Your task to perform on an android device: Search for dining room chairs on Crate & Barrel Image 0: 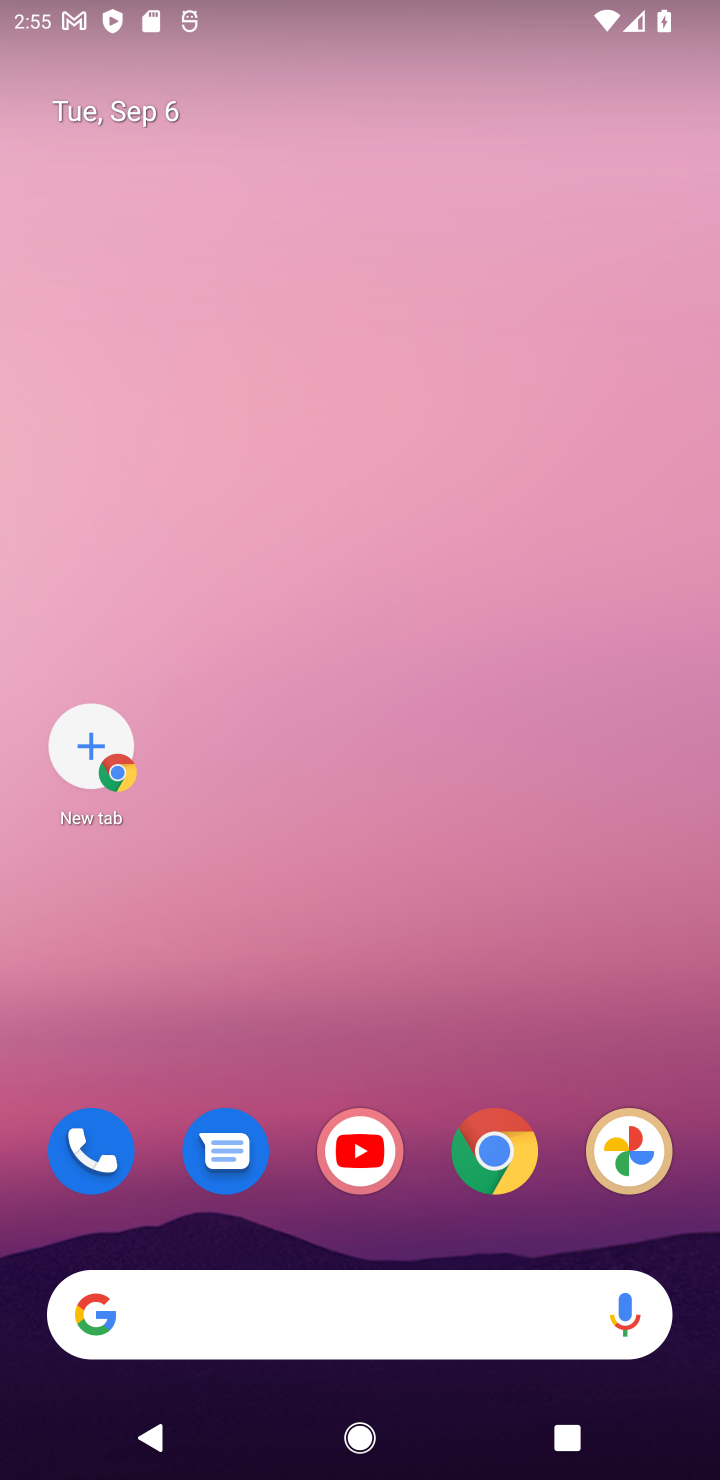
Step 0: press home button
Your task to perform on an android device: Search for dining room chairs on Crate & Barrel Image 1: 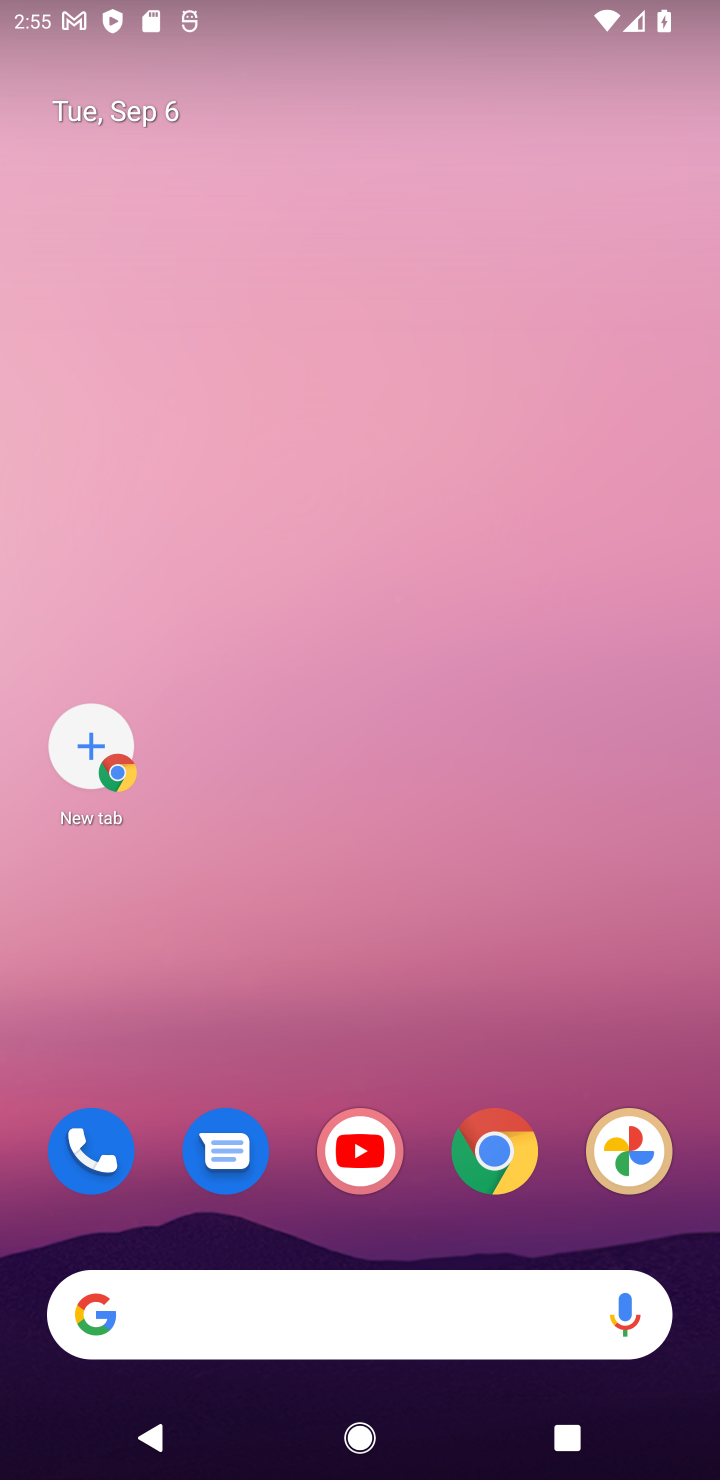
Step 1: click (512, 1150)
Your task to perform on an android device: Search for dining room chairs on Crate & Barrel Image 2: 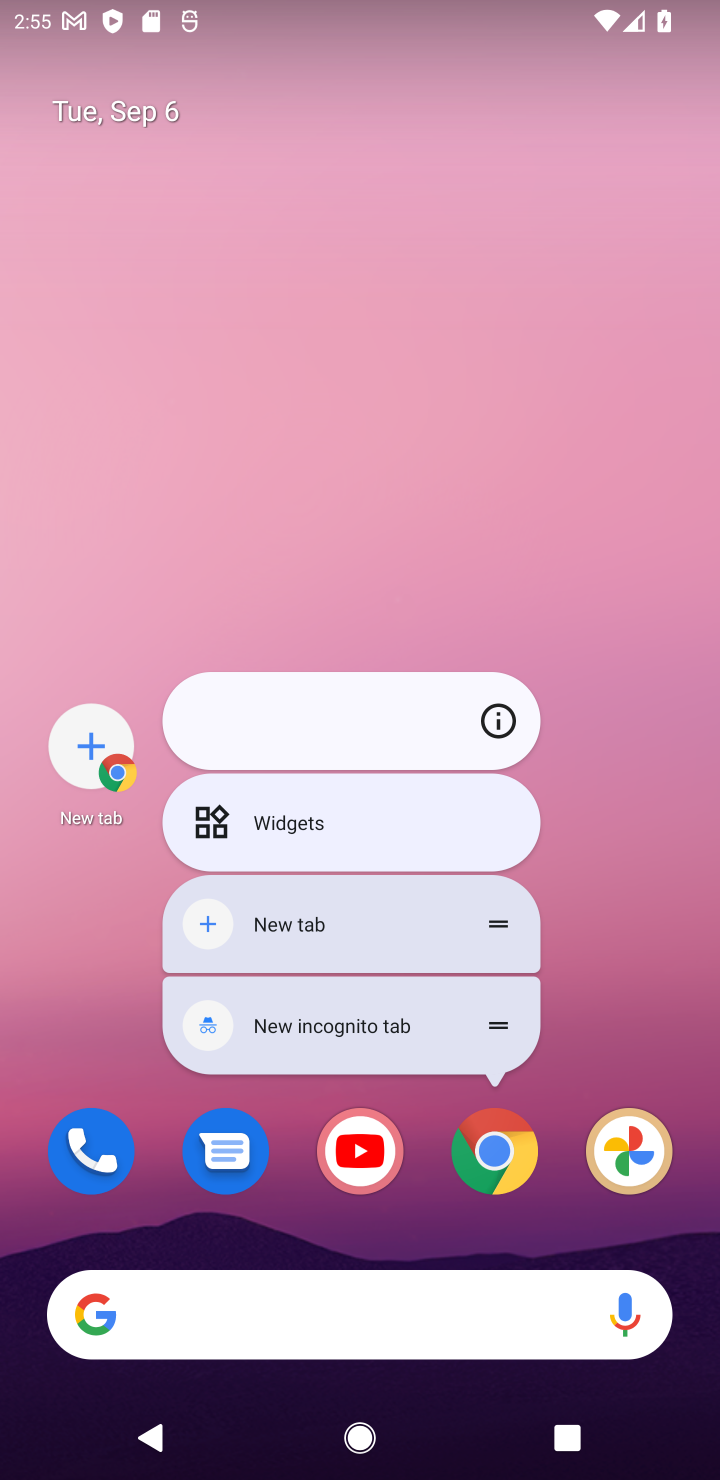
Step 2: click (512, 1146)
Your task to perform on an android device: Search for dining room chairs on Crate & Barrel Image 3: 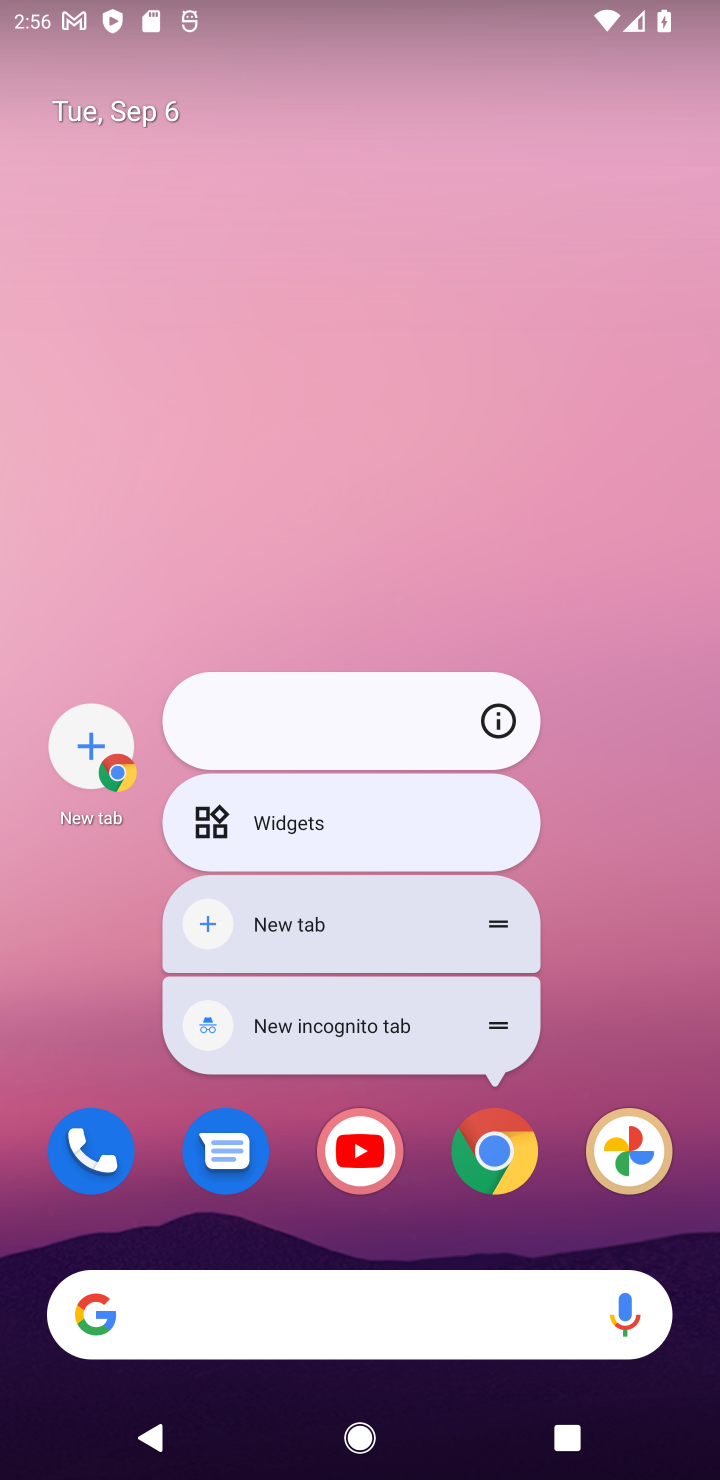
Step 3: click (509, 1149)
Your task to perform on an android device: Search for dining room chairs on Crate & Barrel Image 4: 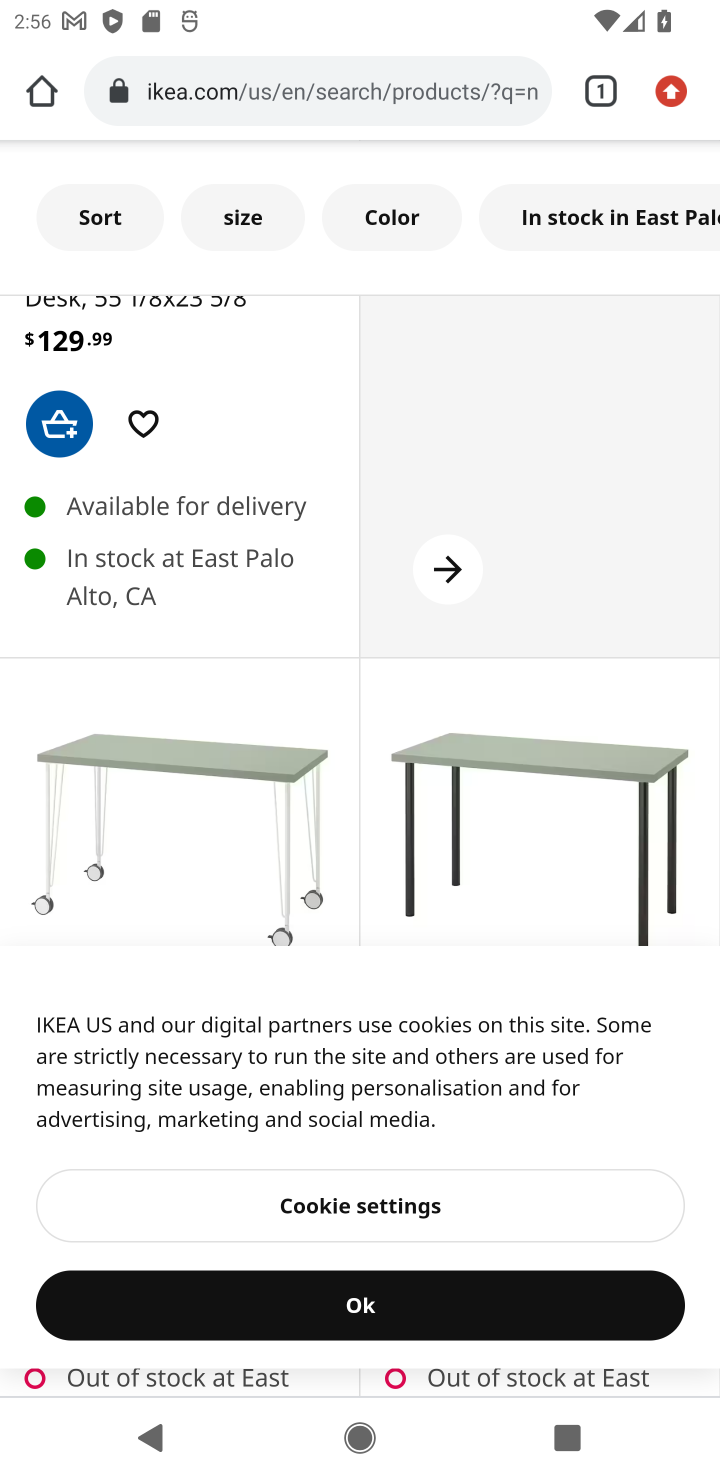
Step 4: click (197, 91)
Your task to perform on an android device: Search for dining room chairs on Crate & Barrel Image 5: 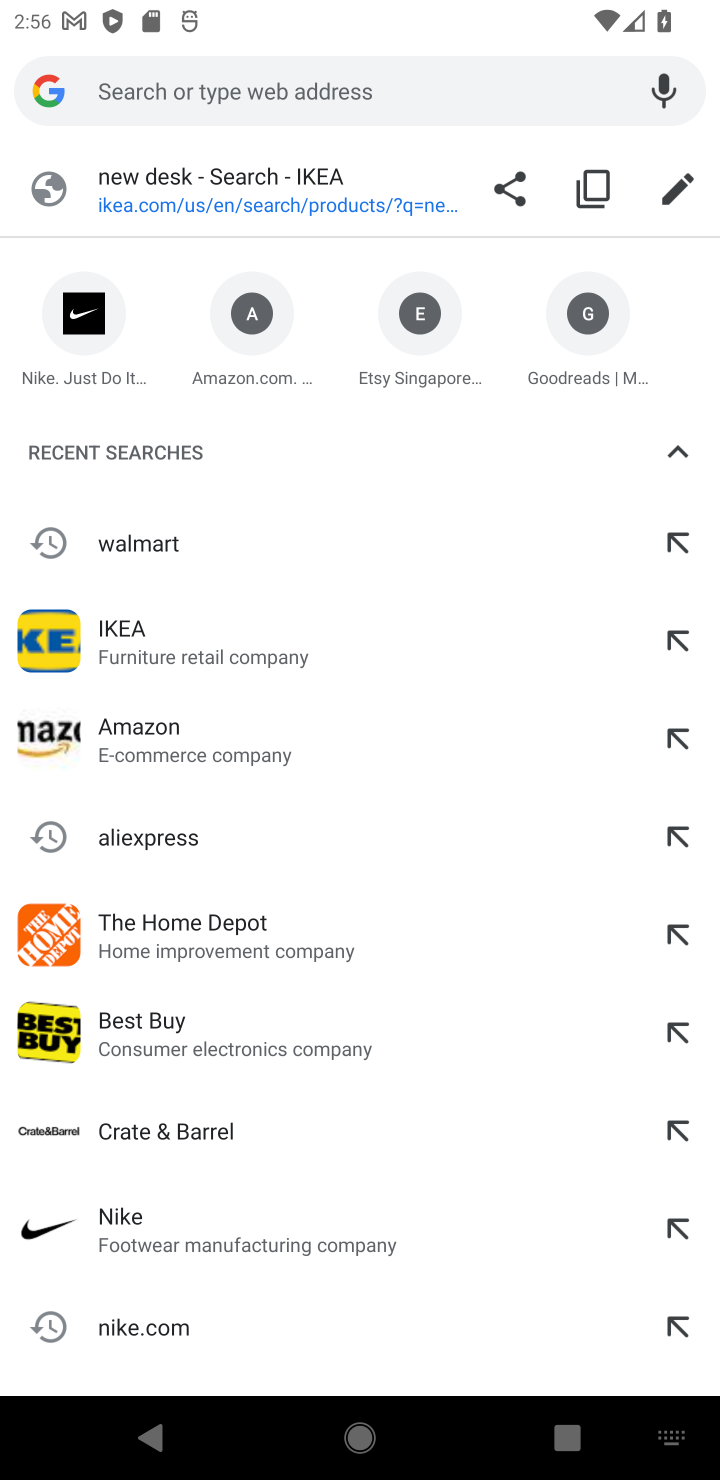
Step 5: type "crate & barrel"
Your task to perform on an android device: Search for dining room chairs on Crate & Barrel Image 6: 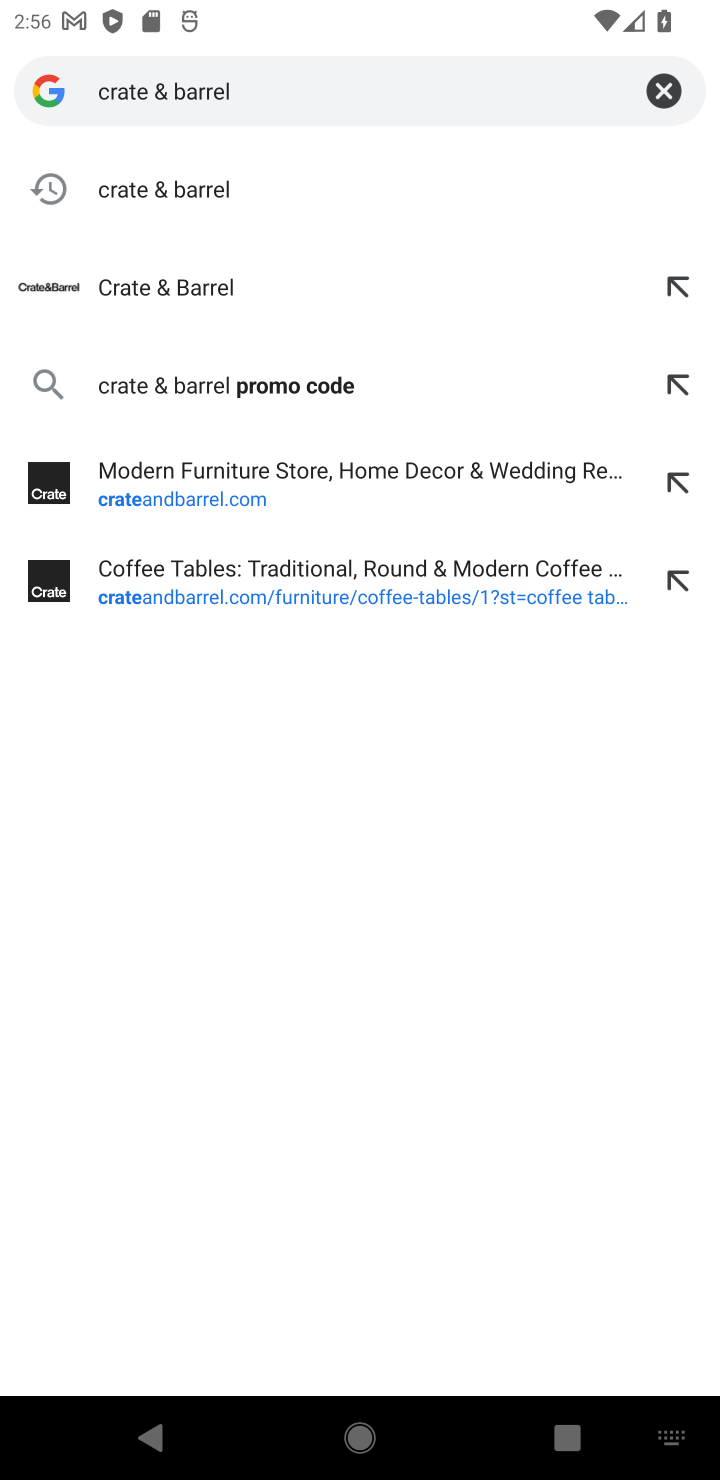
Step 6: click (138, 279)
Your task to perform on an android device: Search for dining room chairs on Crate & Barrel Image 7: 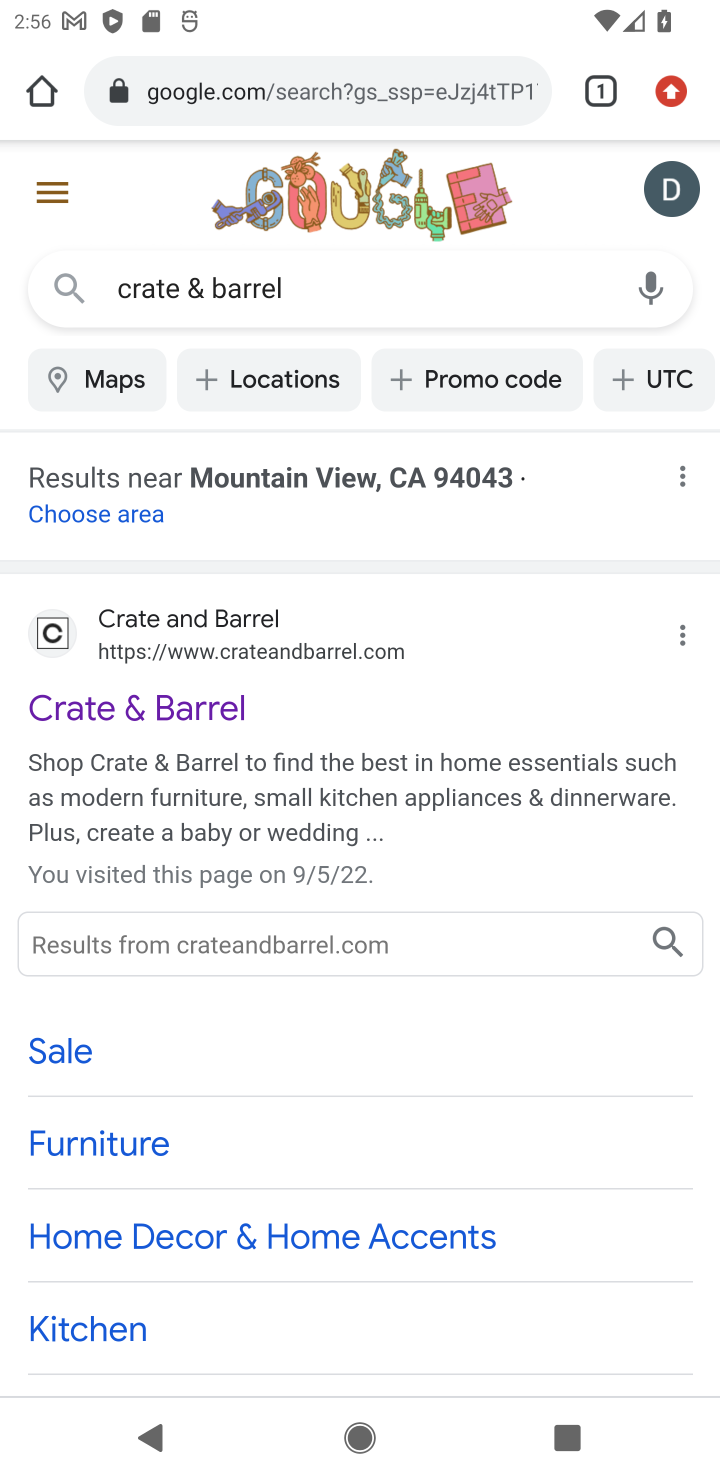
Step 7: drag from (503, 1100) to (634, 298)
Your task to perform on an android device: Search for dining room chairs on Crate & Barrel Image 8: 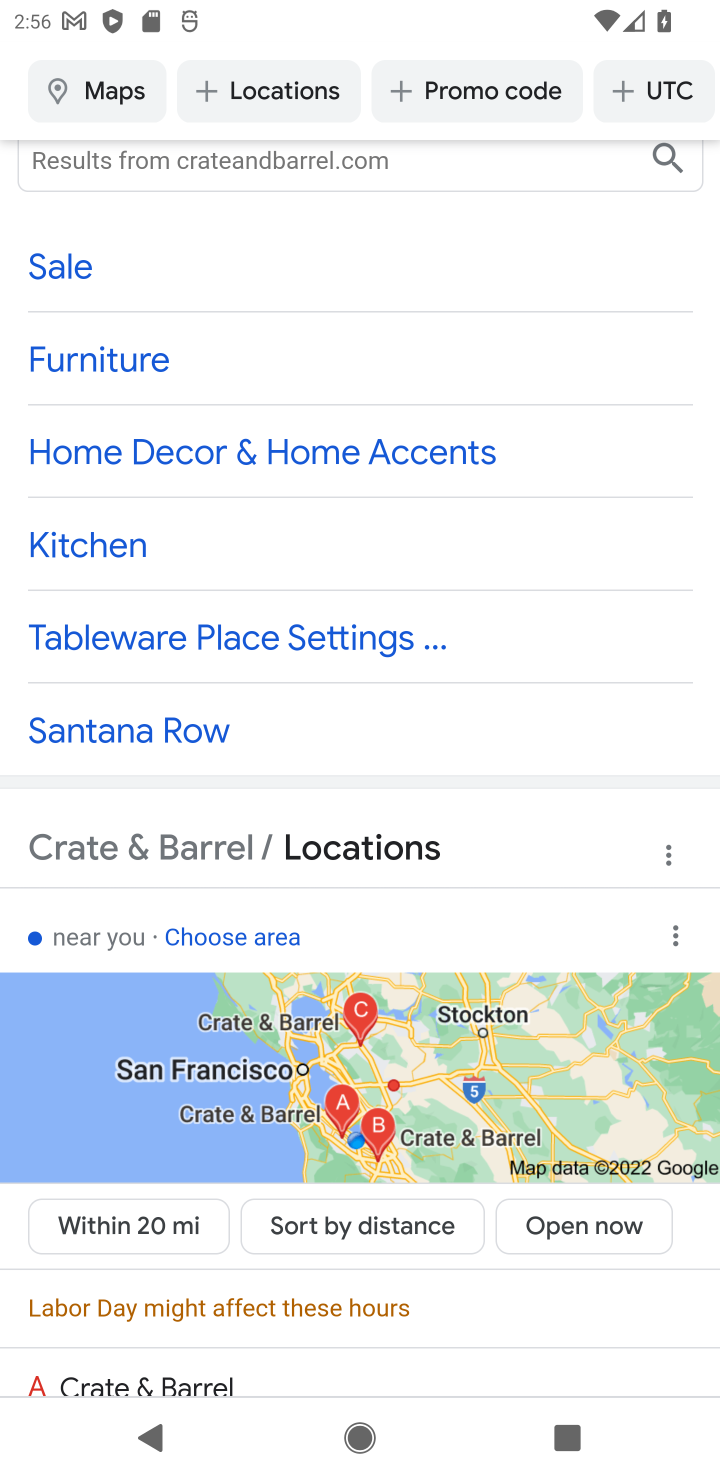
Step 8: drag from (227, 1258) to (323, 376)
Your task to perform on an android device: Search for dining room chairs on Crate & Barrel Image 9: 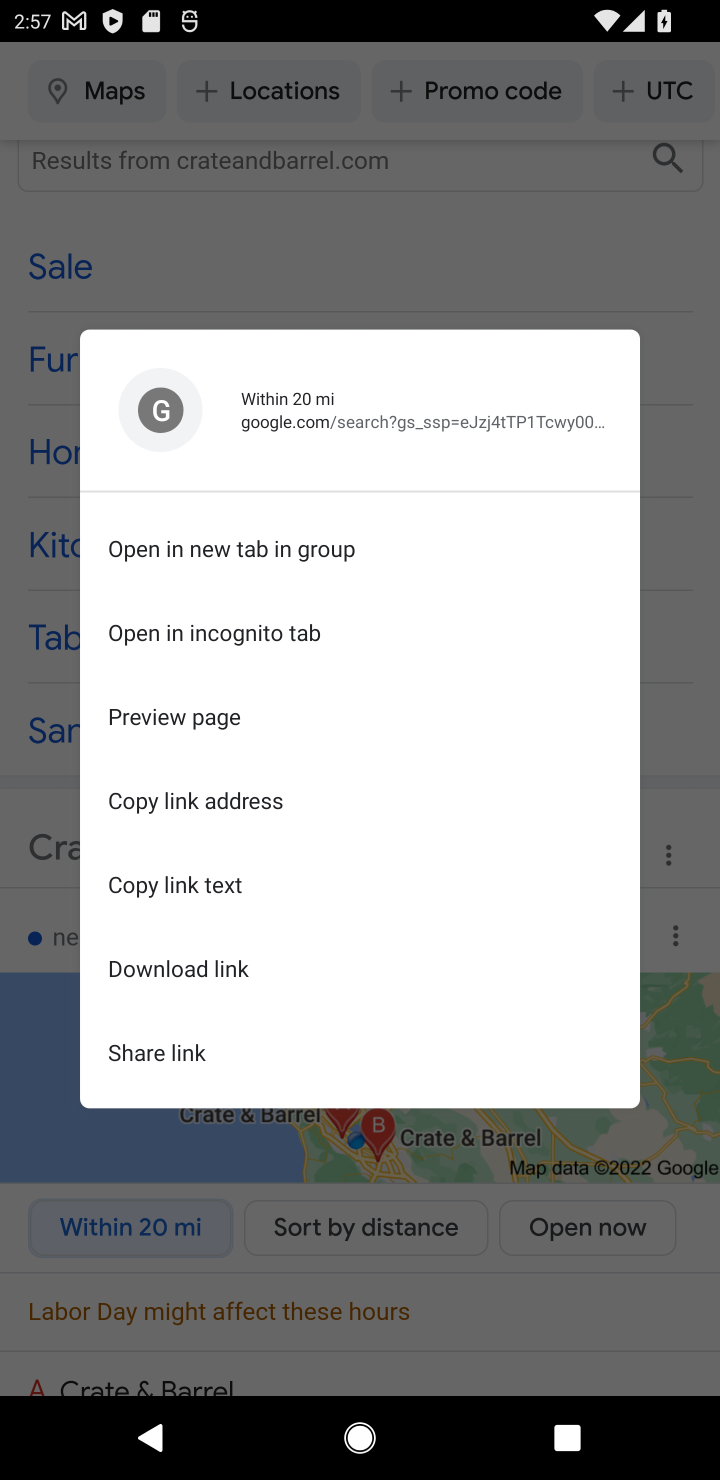
Step 9: click (677, 649)
Your task to perform on an android device: Search for dining room chairs on Crate & Barrel Image 10: 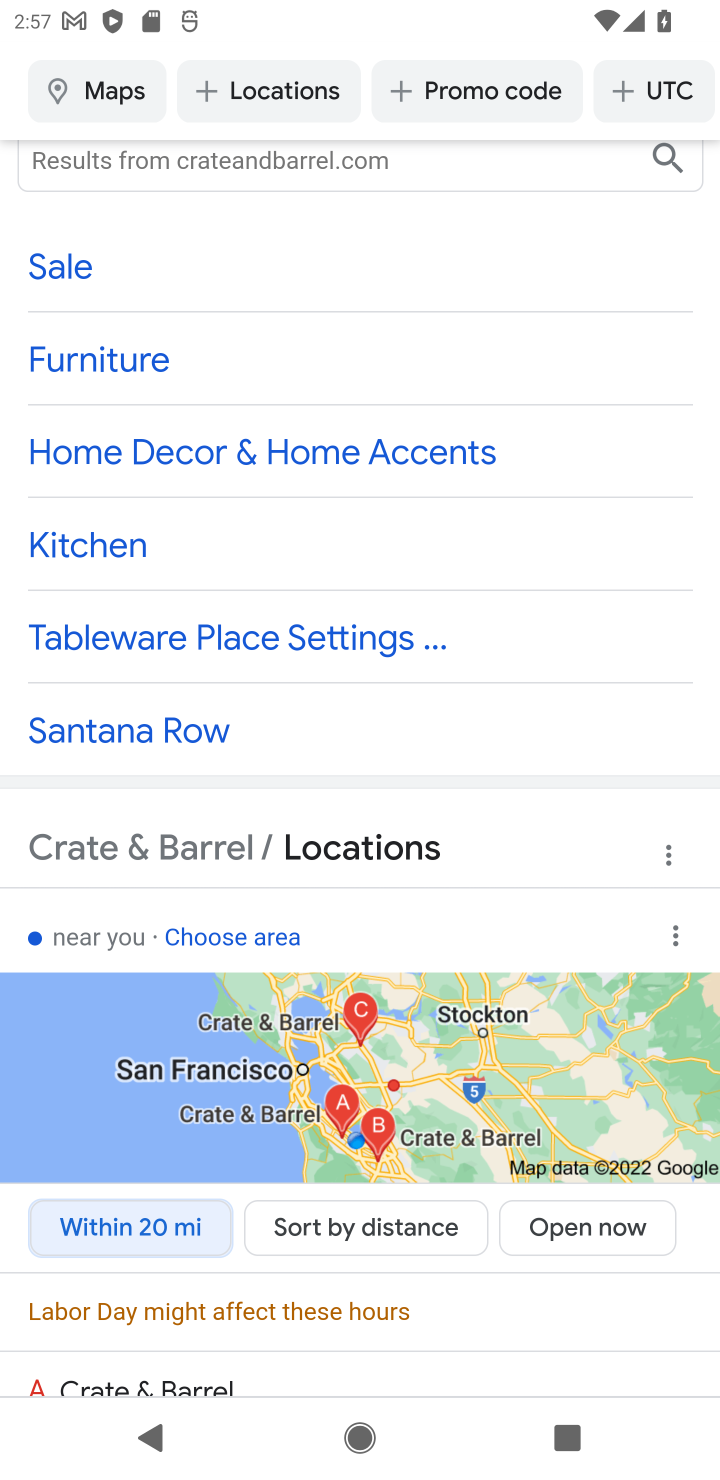
Step 10: click (635, 1082)
Your task to perform on an android device: Search for dining room chairs on Crate & Barrel Image 11: 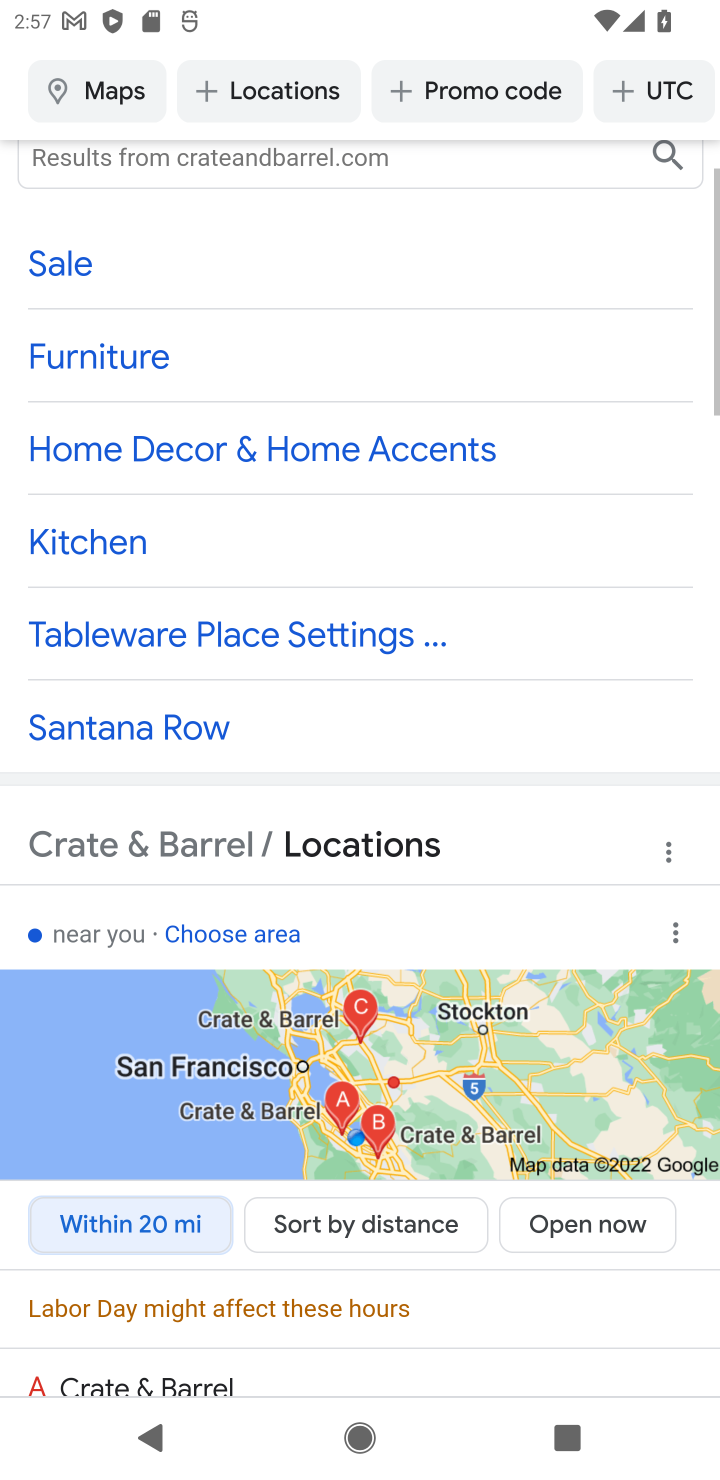
Step 11: drag from (509, 367) to (578, 1313)
Your task to perform on an android device: Search for dining room chairs on Crate & Barrel Image 12: 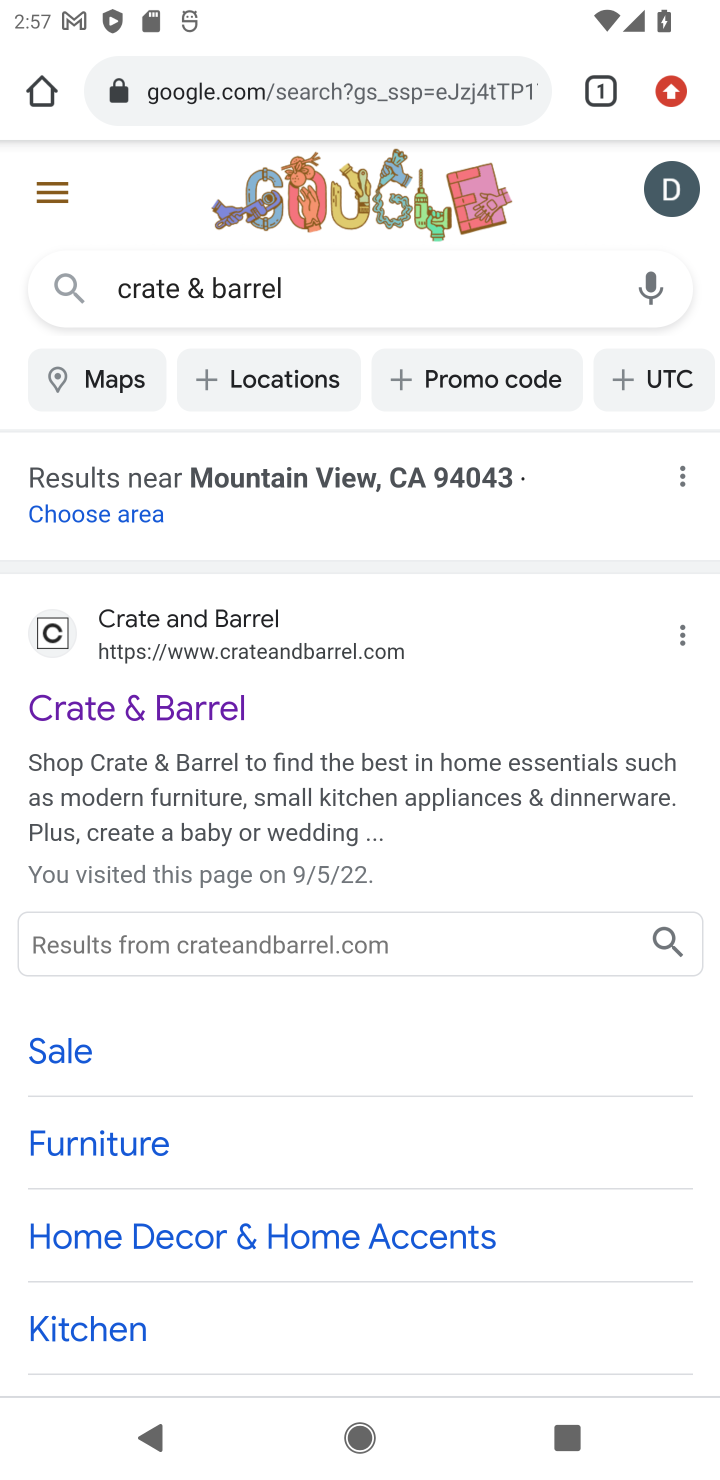
Step 12: click (79, 715)
Your task to perform on an android device: Search for dining room chairs on Crate & Barrel Image 13: 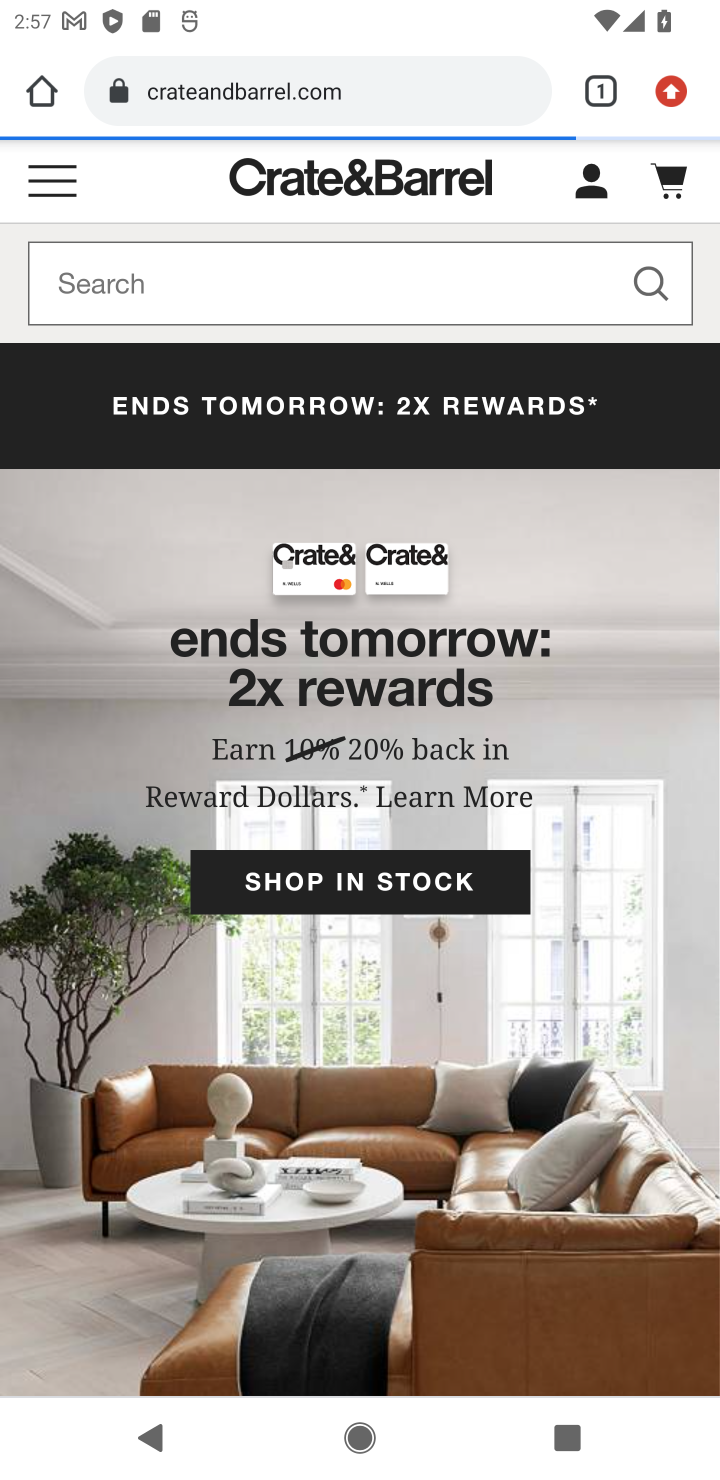
Step 13: click (132, 297)
Your task to perform on an android device: Search for dining room chairs on Crate & Barrel Image 14: 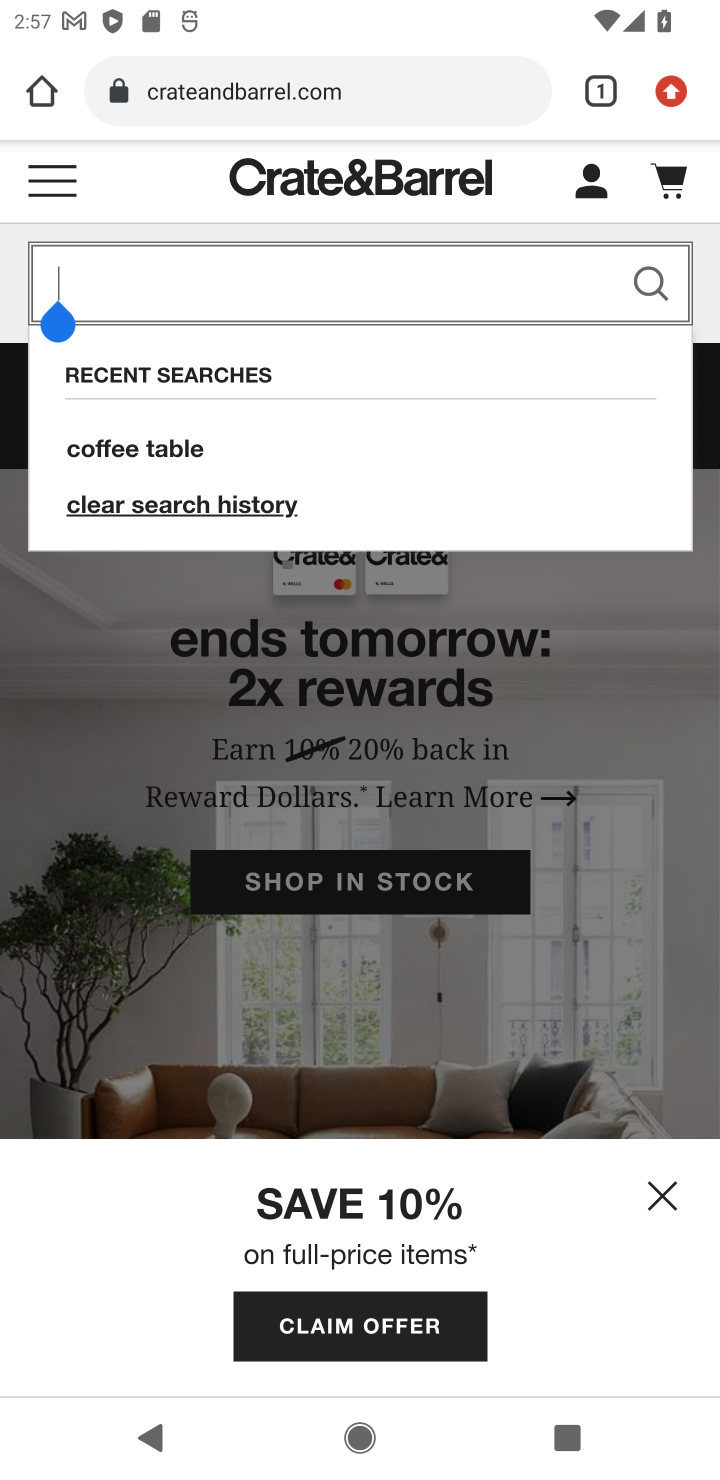
Step 14: type "dining room chair"
Your task to perform on an android device: Search for dining room chairs on Crate & Barrel Image 15: 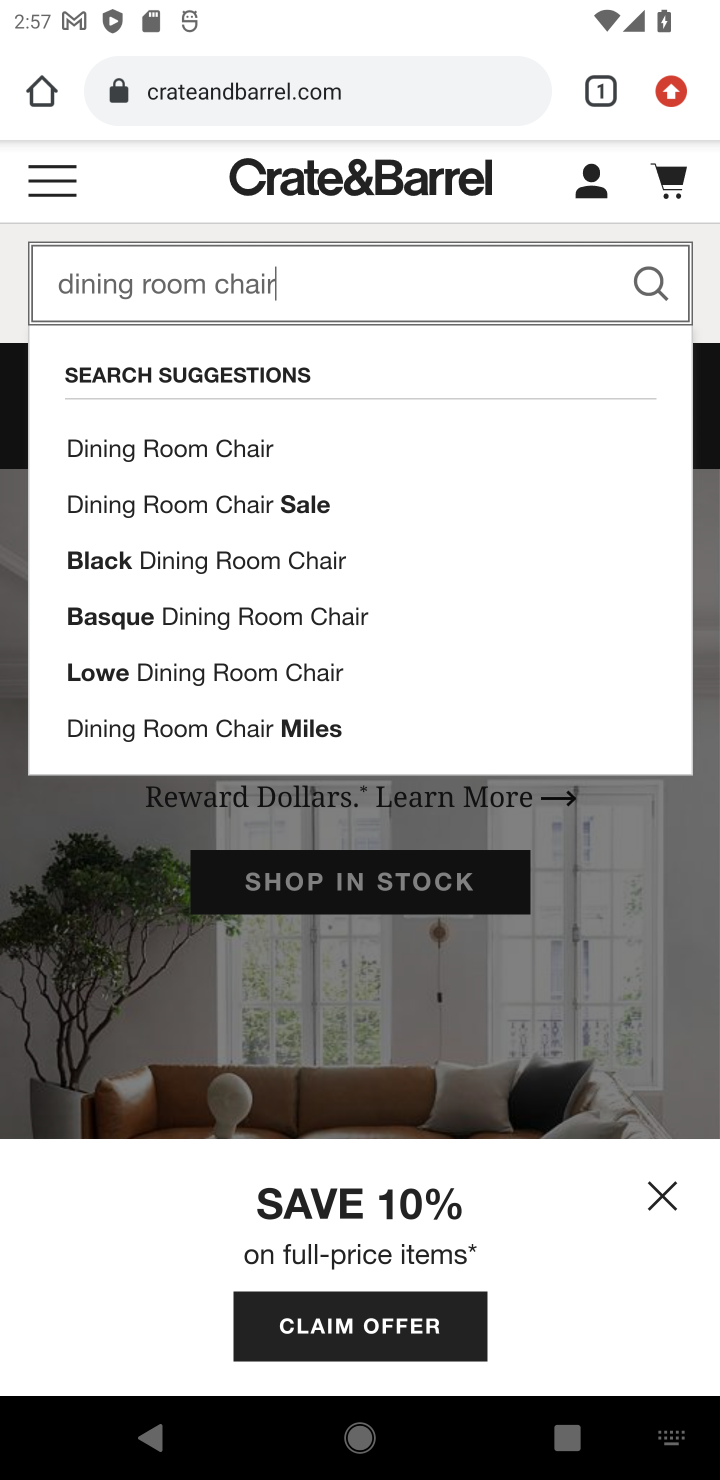
Step 15: click (125, 444)
Your task to perform on an android device: Search for dining room chairs on Crate & Barrel Image 16: 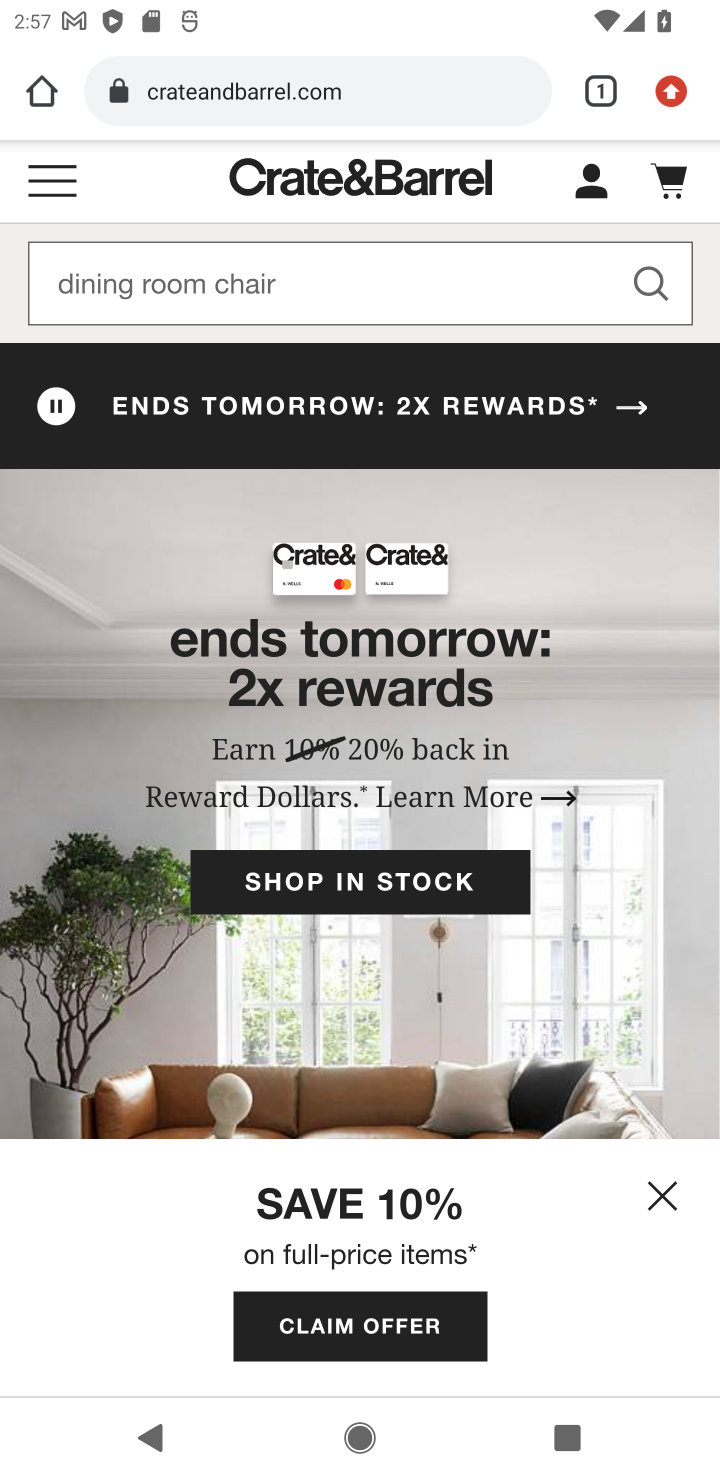
Step 16: click (654, 1199)
Your task to perform on an android device: Search for dining room chairs on Crate & Barrel Image 17: 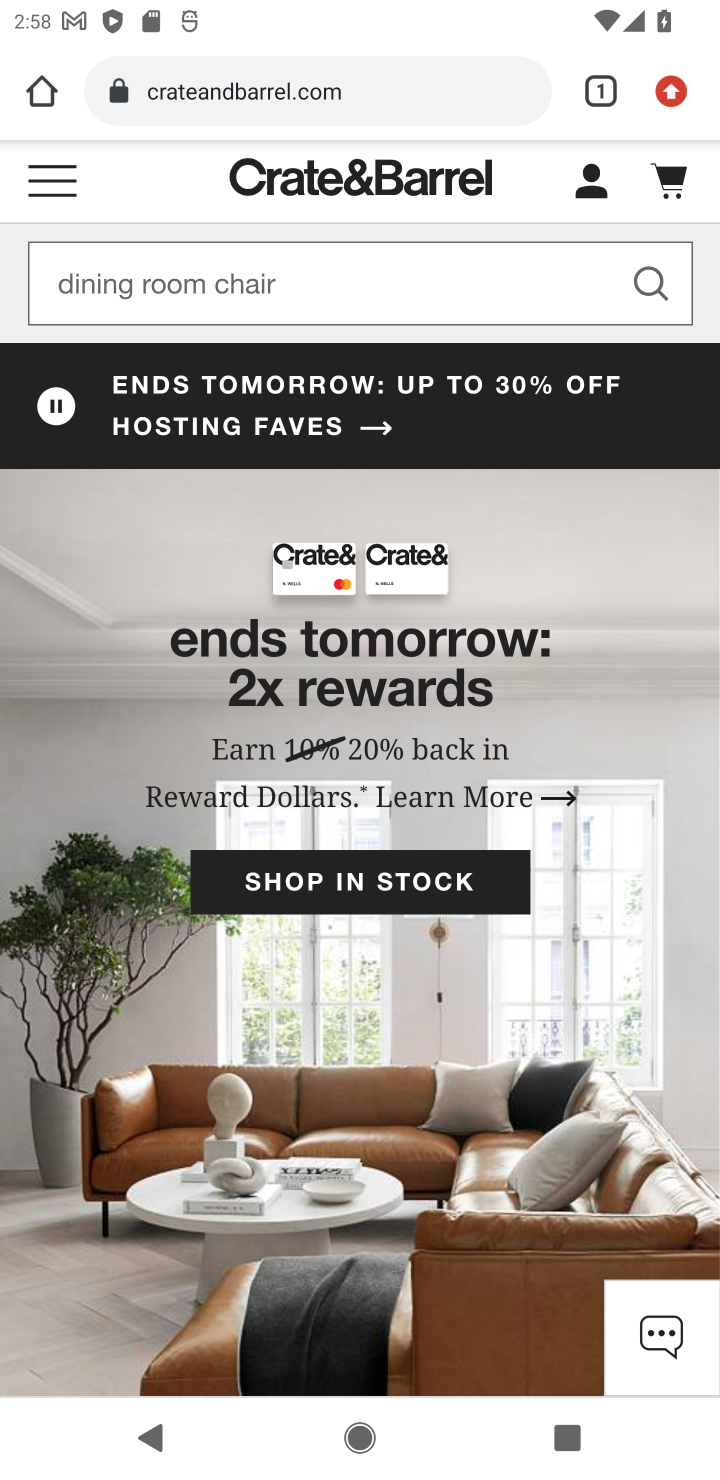
Step 17: press enter
Your task to perform on an android device: Search for dining room chairs on Crate & Barrel Image 18: 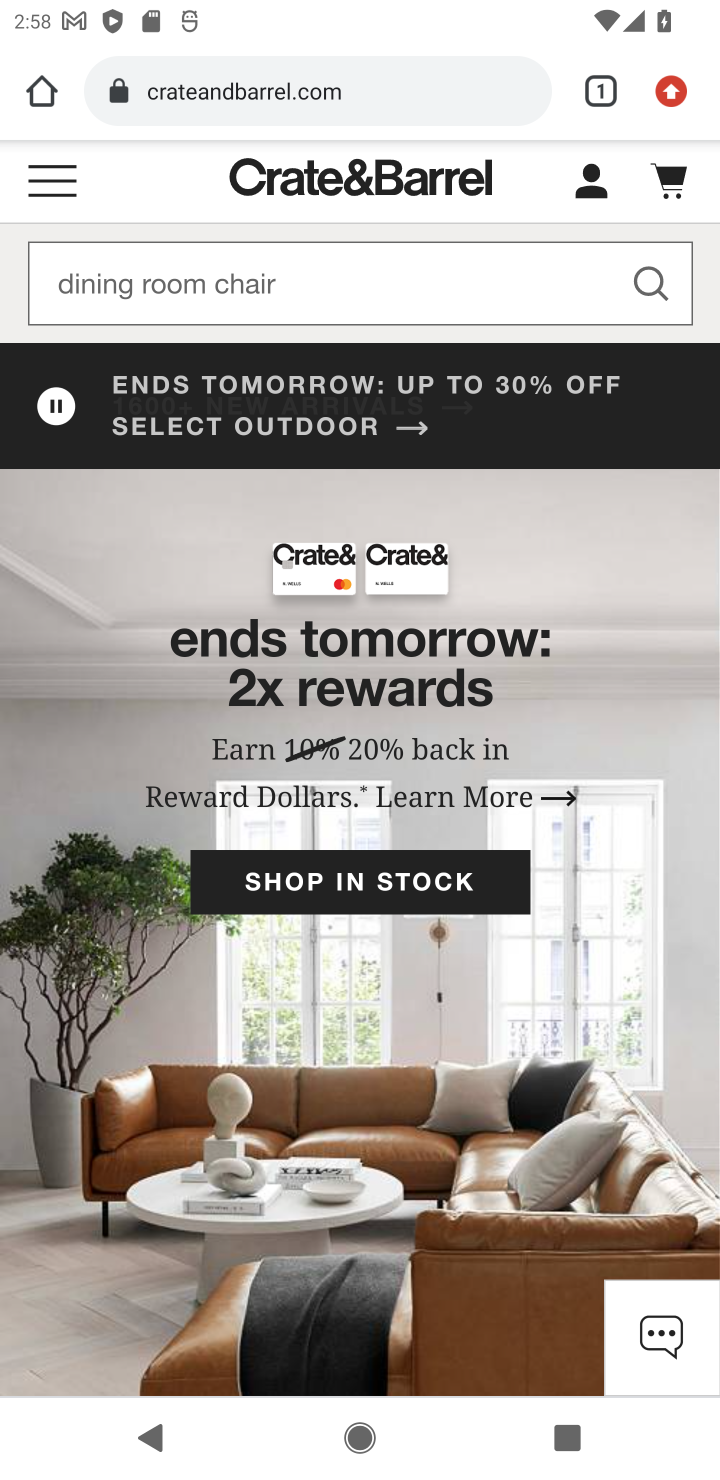
Step 18: press enter
Your task to perform on an android device: Search for dining room chairs on Crate & Barrel Image 19: 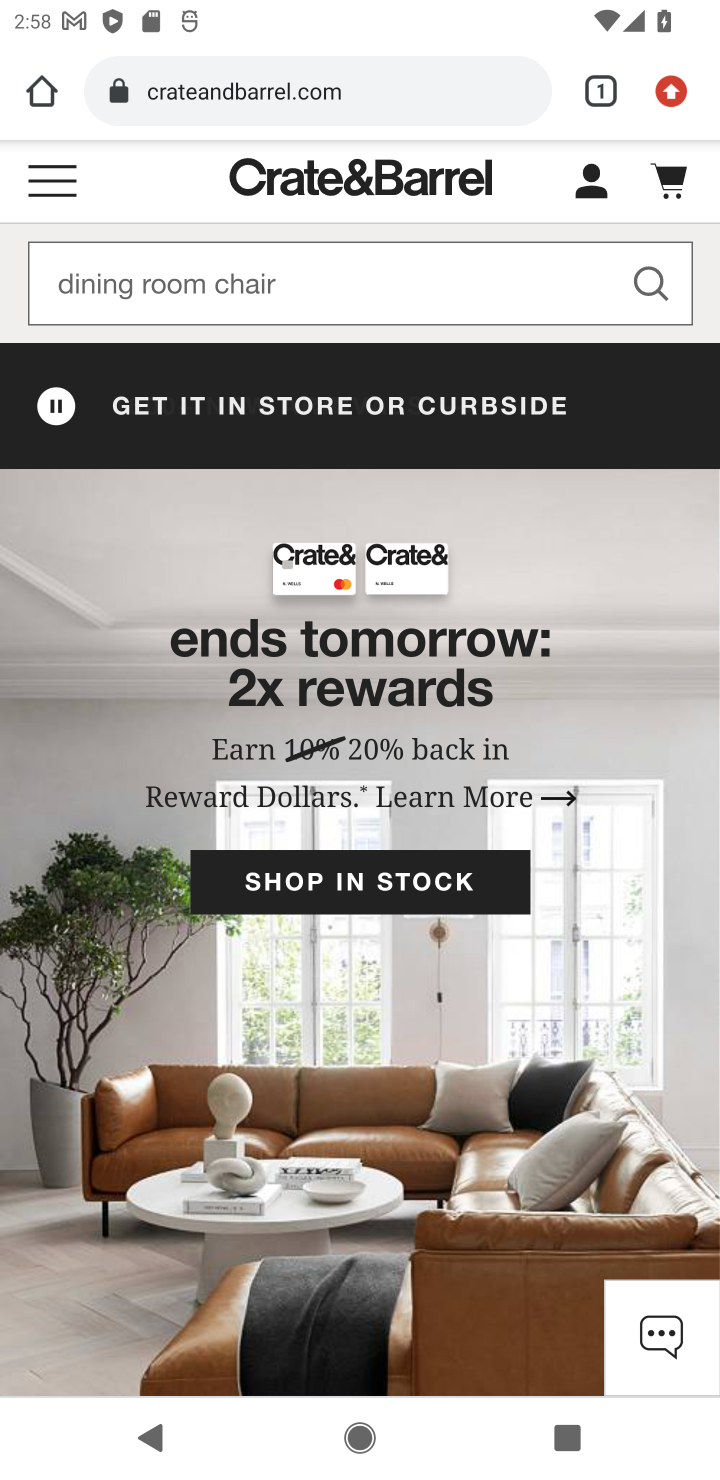
Step 19: click (636, 287)
Your task to perform on an android device: Search for dining room chairs on Crate & Barrel Image 20: 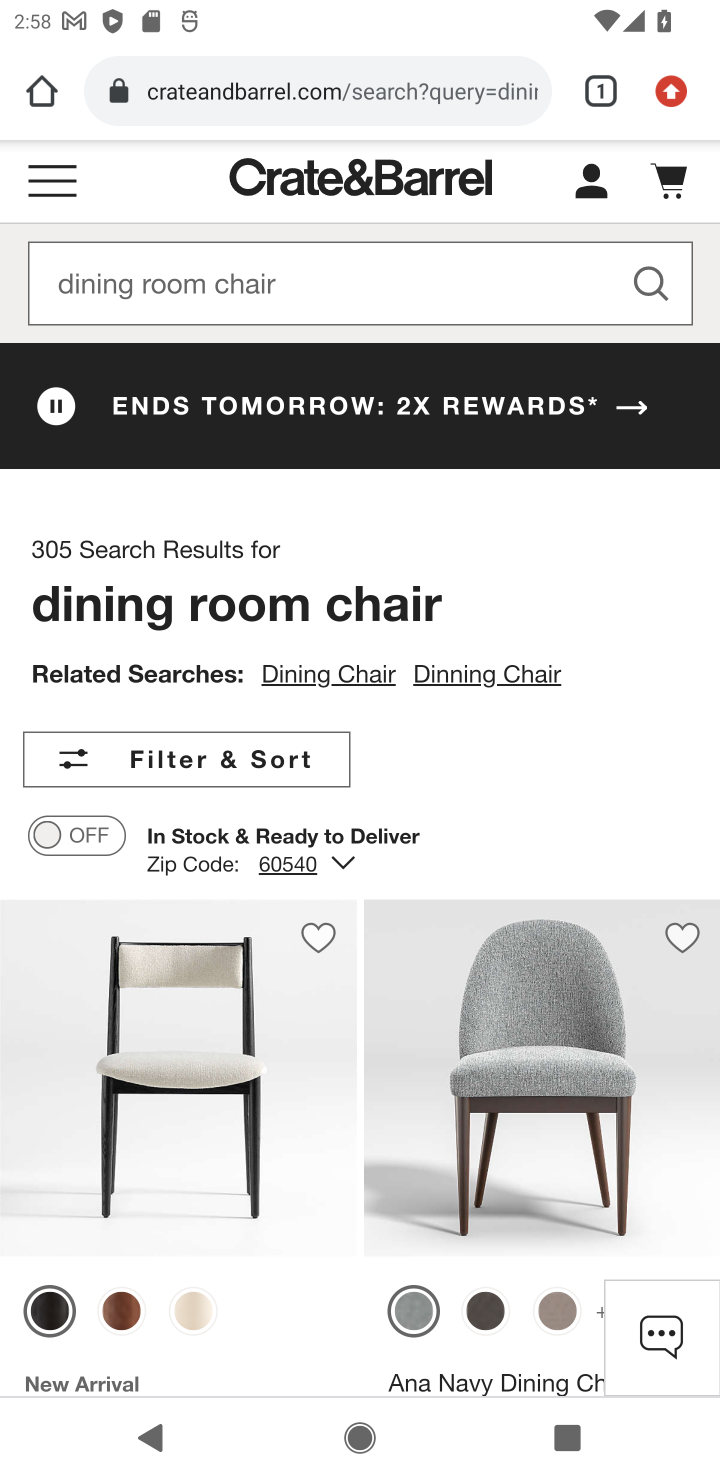
Step 20: task complete